Your task to perform on an android device: change notification settings in the gmail app Image 0: 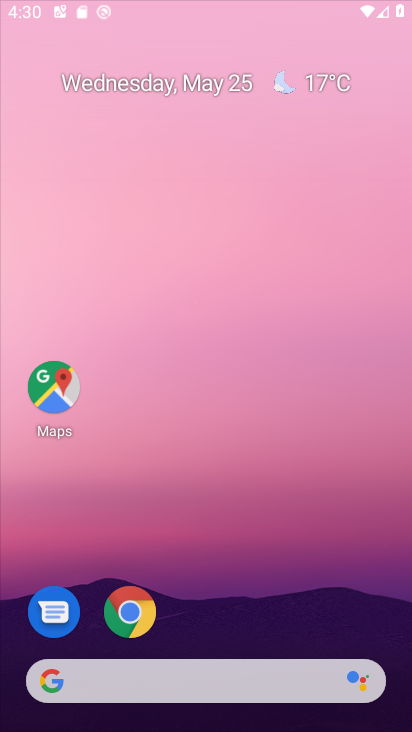
Step 0: press home button
Your task to perform on an android device: change notification settings in the gmail app Image 1: 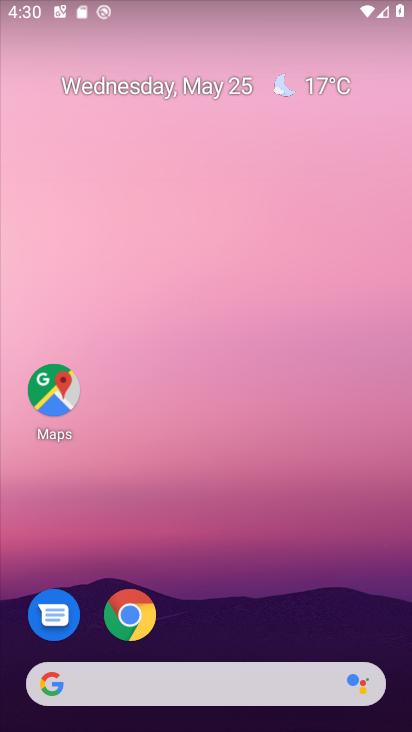
Step 1: drag from (301, 517) to (190, 40)
Your task to perform on an android device: change notification settings in the gmail app Image 2: 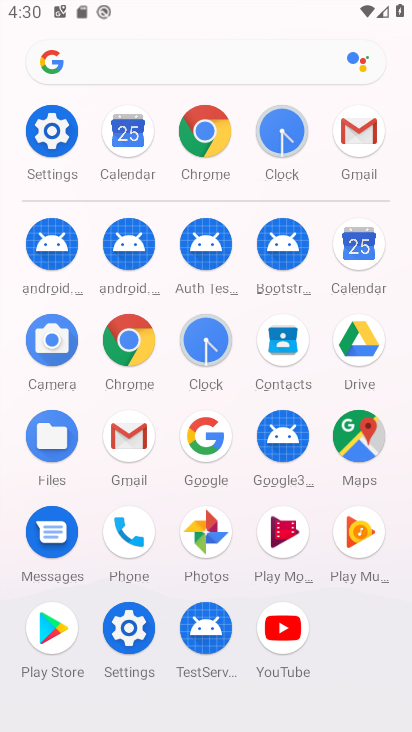
Step 2: click (131, 441)
Your task to perform on an android device: change notification settings in the gmail app Image 3: 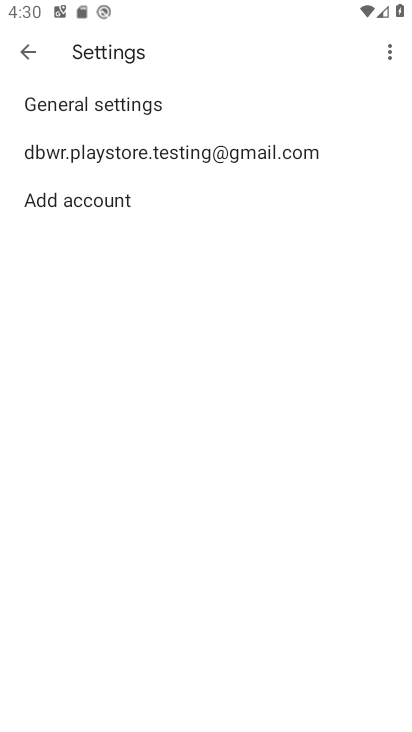
Step 3: click (76, 139)
Your task to perform on an android device: change notification settings in the gmail app Image 4: 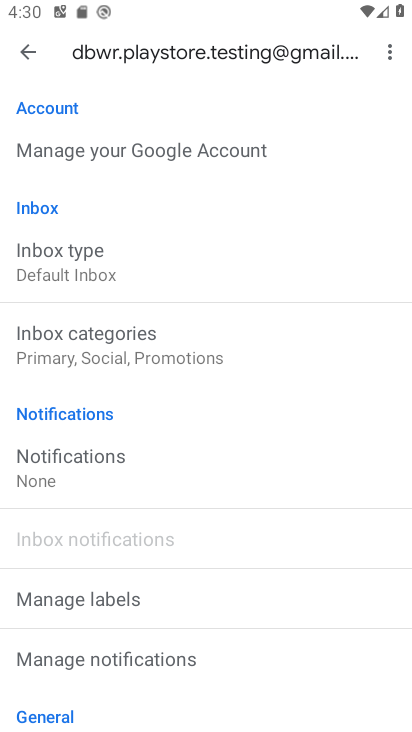
Step 4: click (102, 475)
Your task to perform on an android device: change notification settings in the gmail app Image 5: 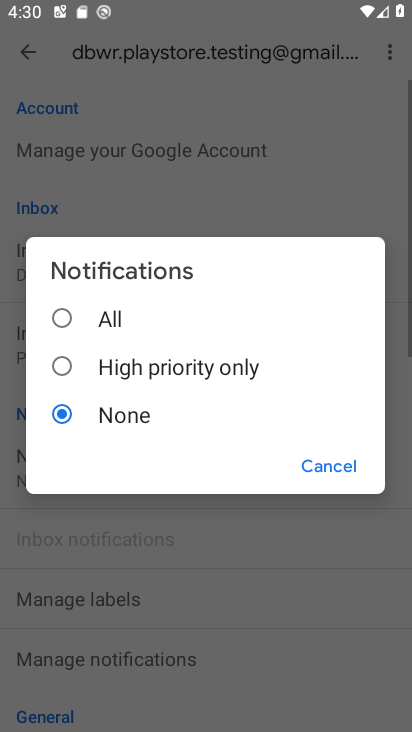
Step 5: click (99, 320)
Your task to perform on an android device: change notification settings in the gmail app Image 6: 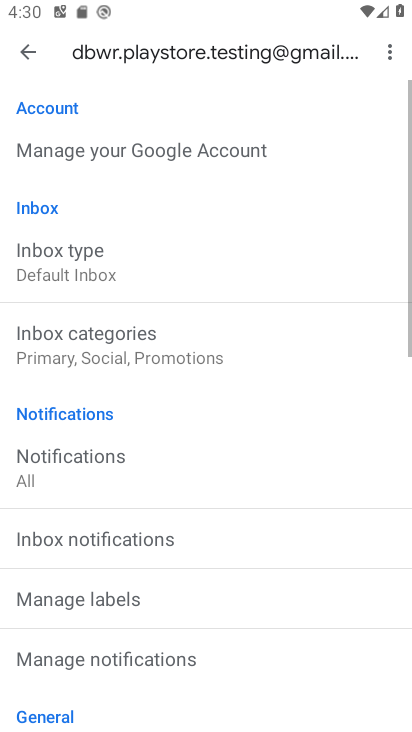
Step 6: task complete